Your task to perform on an android device: Open calendar and show me the second week of next month Image 0: 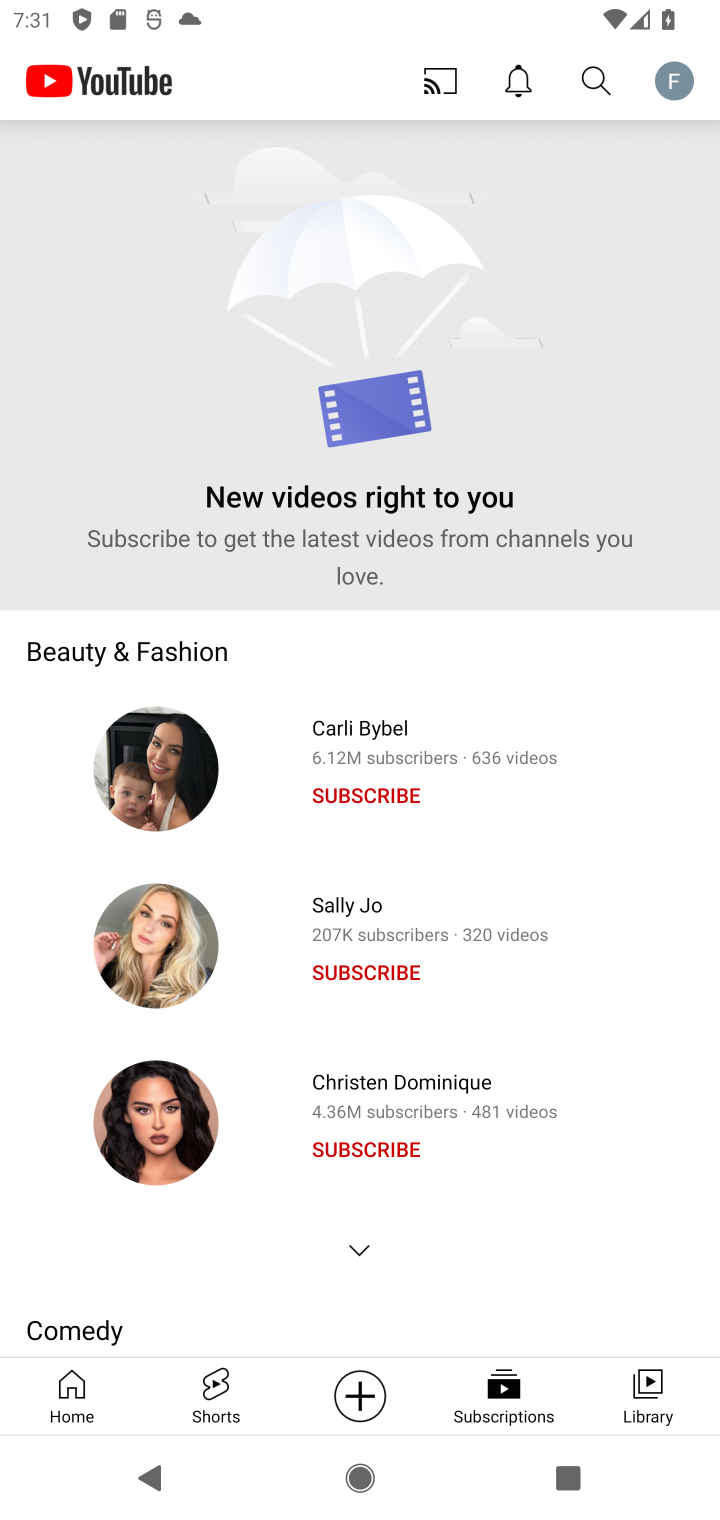
Step 0: press home button
Your task to perform on an android device: Open calendar and show me the second week of next month Image 1: 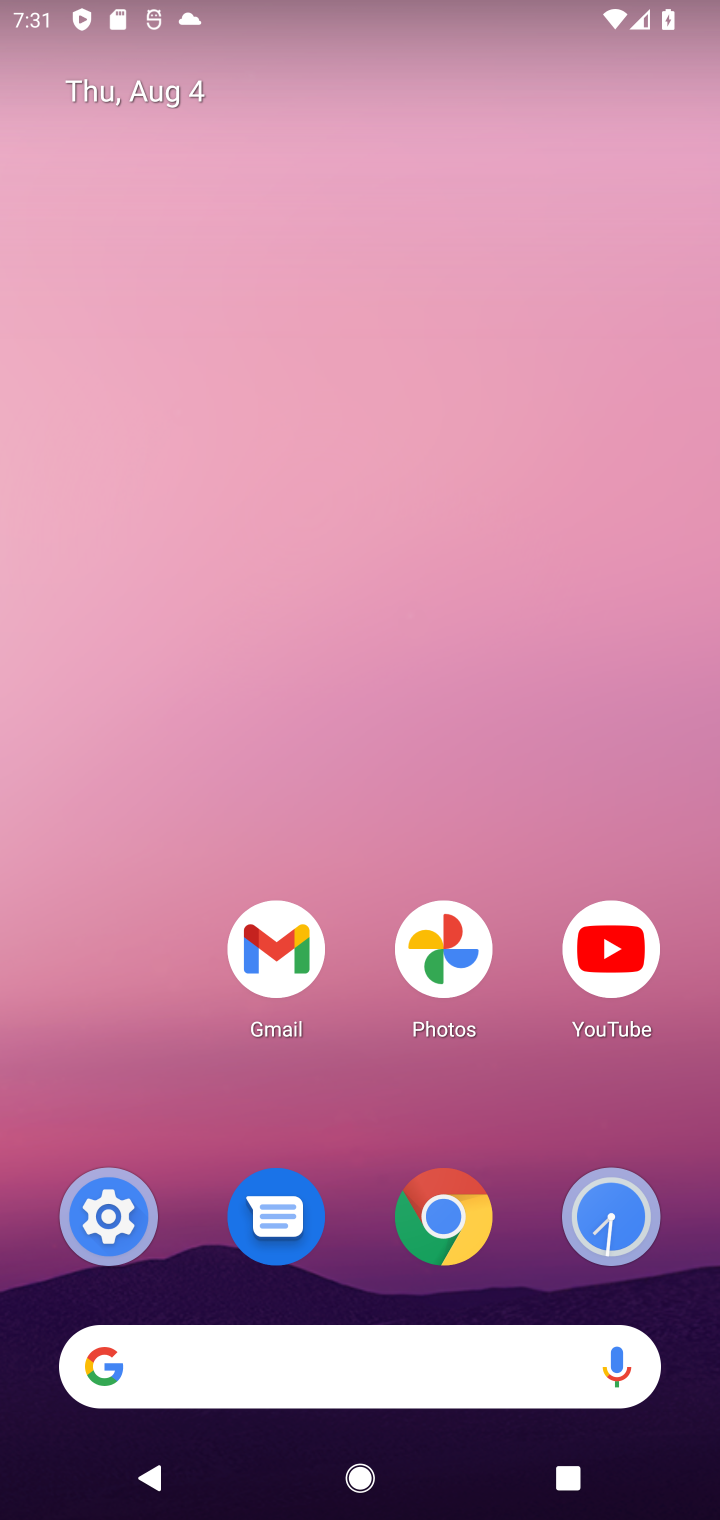
Step 1: drag from (361, 1186) to (372, 168)
Your task to perform on an android device: Open calendar and show me the second week of next month Image 2: 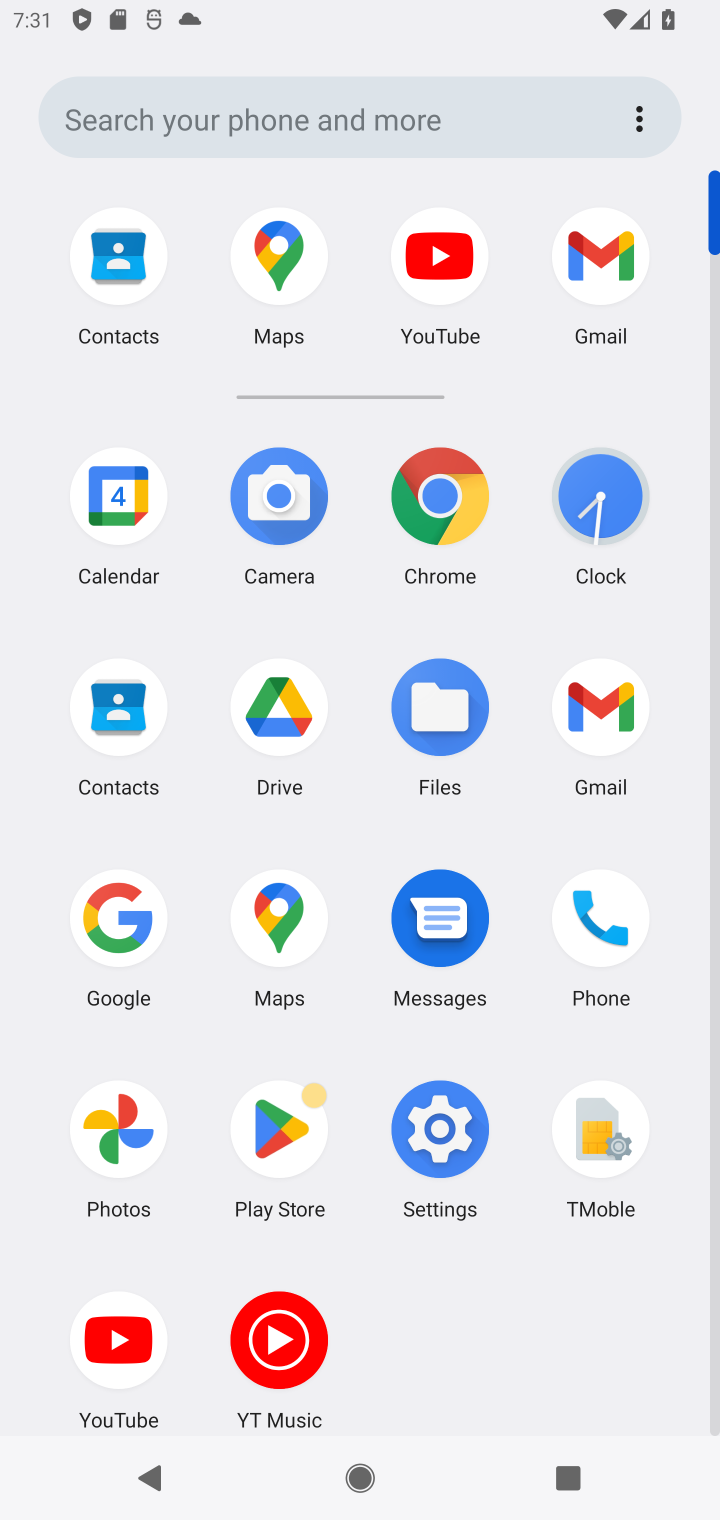
Step 2: click (131, 481)
Your task to perform on an android device: Open calendar and show me the second week of next month Image 3: 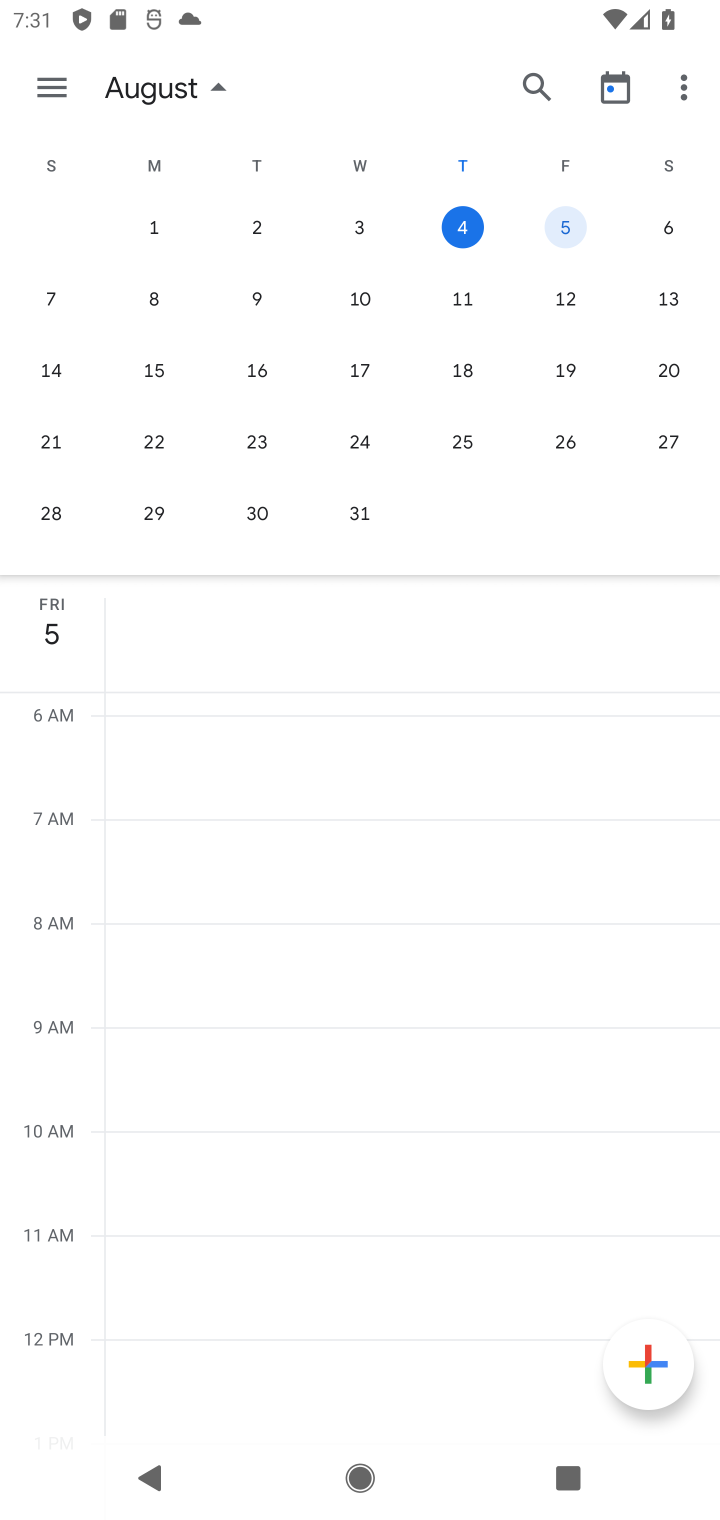
Step 3: drag from (517, 290) to (98, 285)
Your task to perform on an android device: Open calendar and show me the second week of next month Image 4: 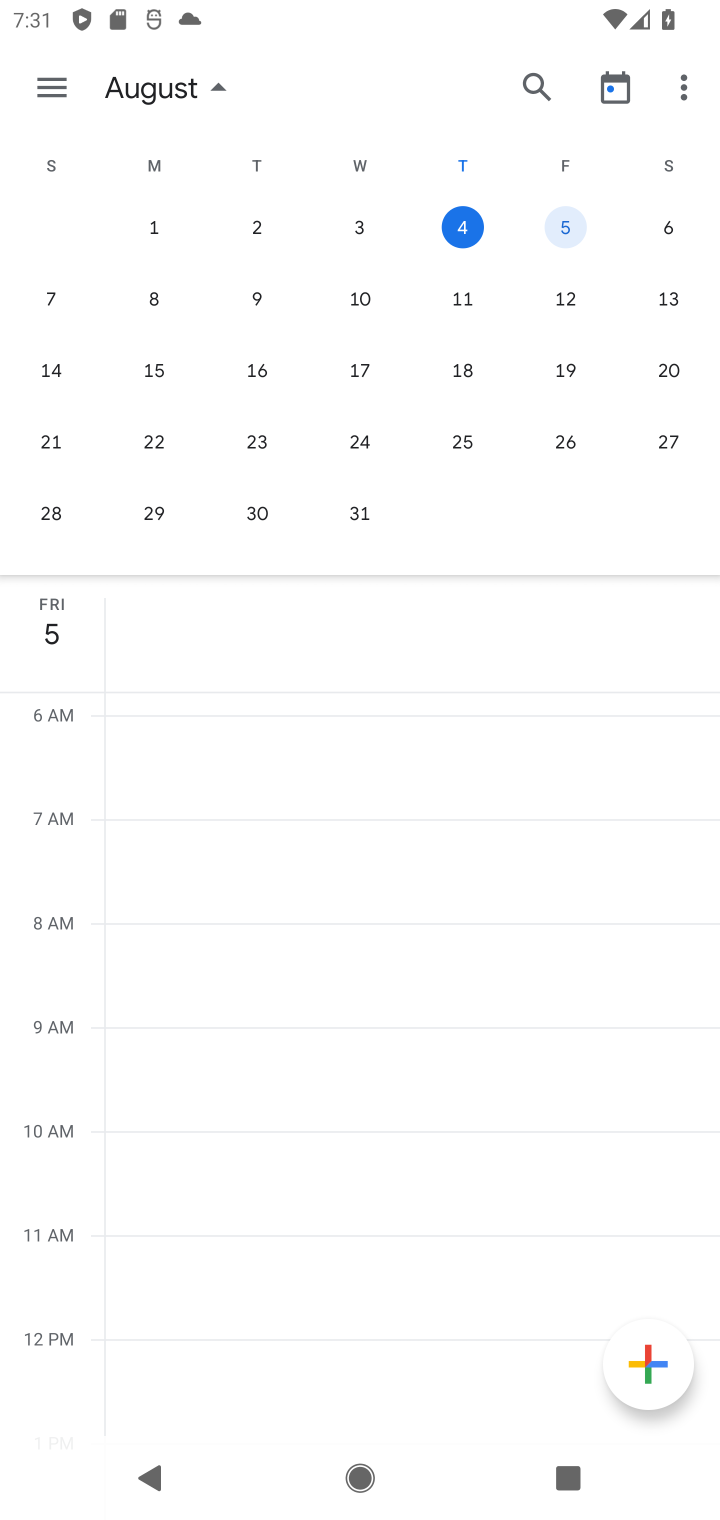
Step 4: drag from (648, 361) to (15, 378)
Your task to perform on an android device: Open calendar and show me the second week of next month Image 5: 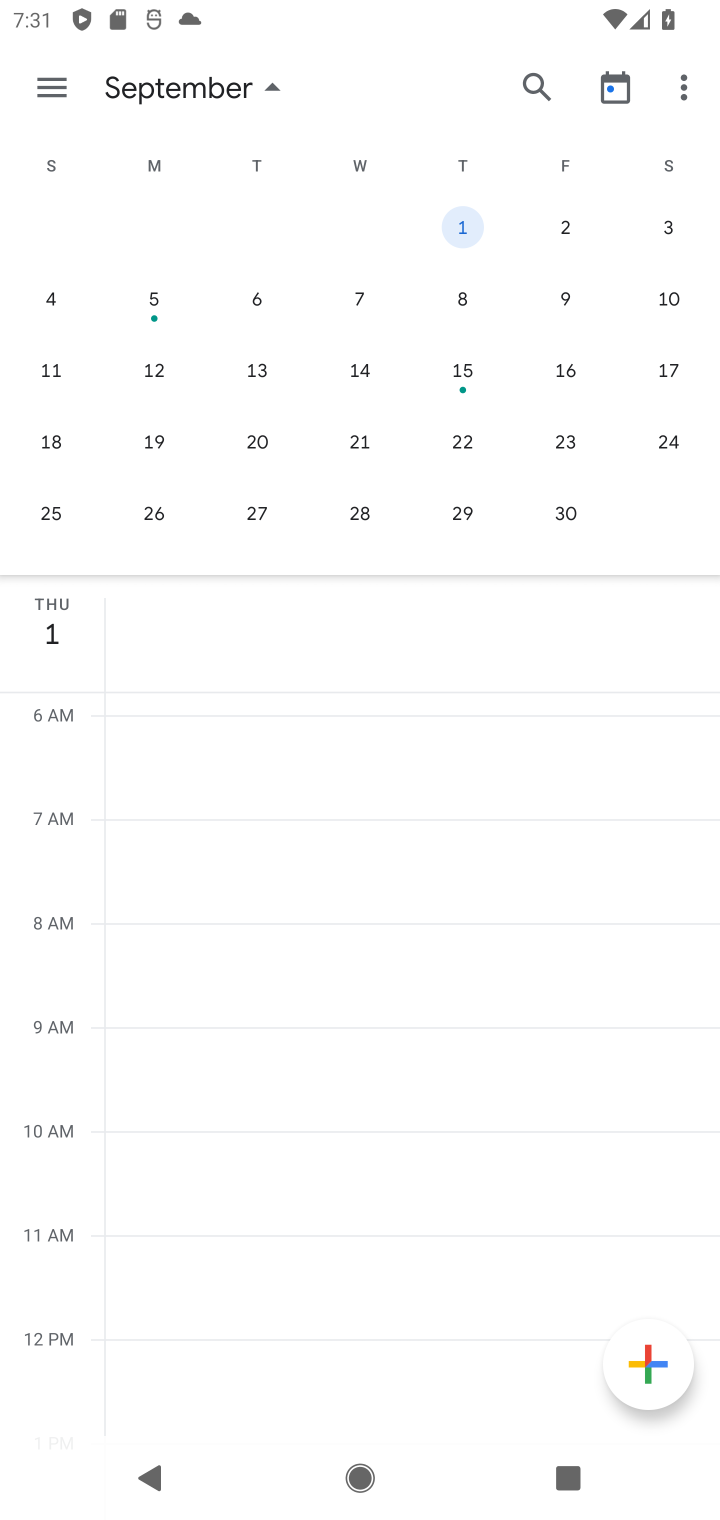
Step 5: click (154, 357)
Your task to perform on an android device: Open calendar and show me the second week of next month Image 6: 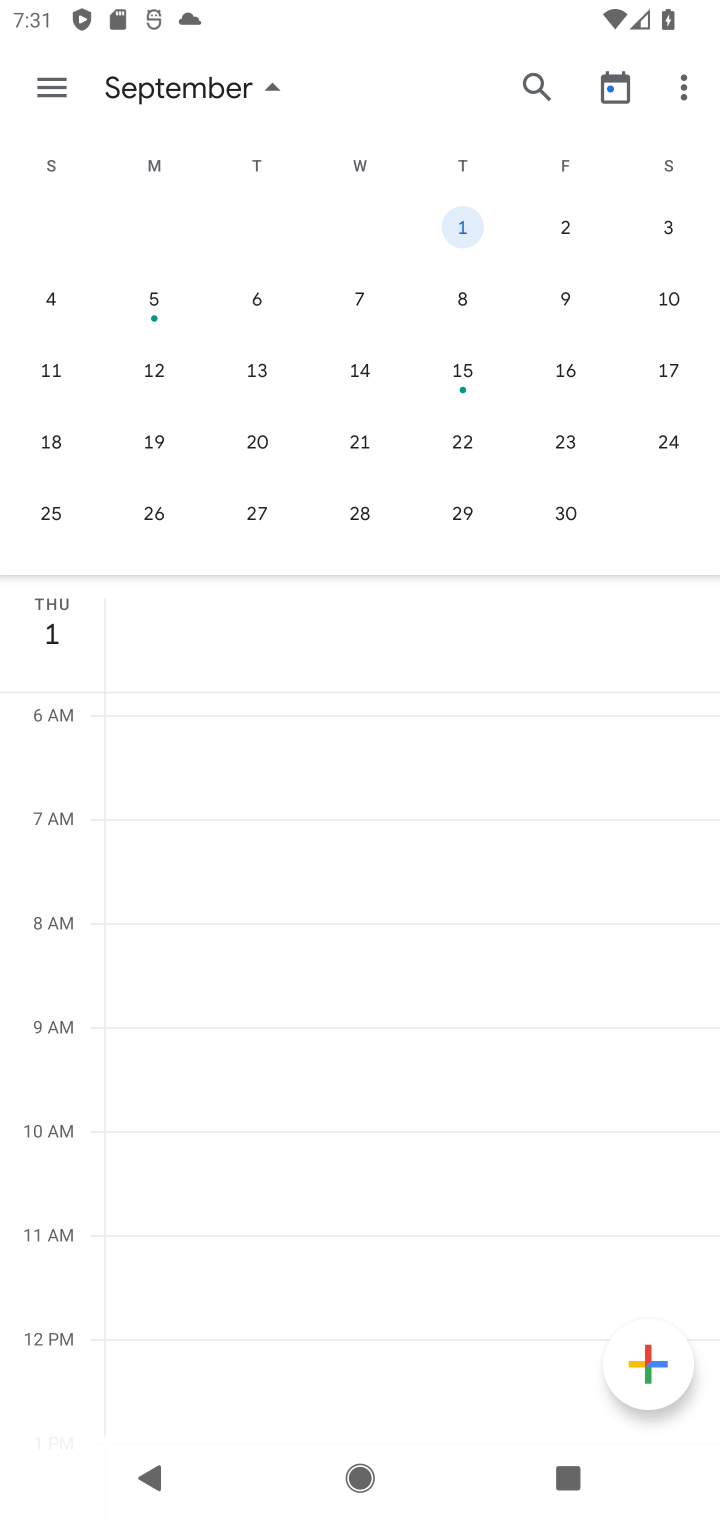
Step 6: click (151, 360)
Your task to perform on an android device: Open calendar and show me the second week of next month Image 7: 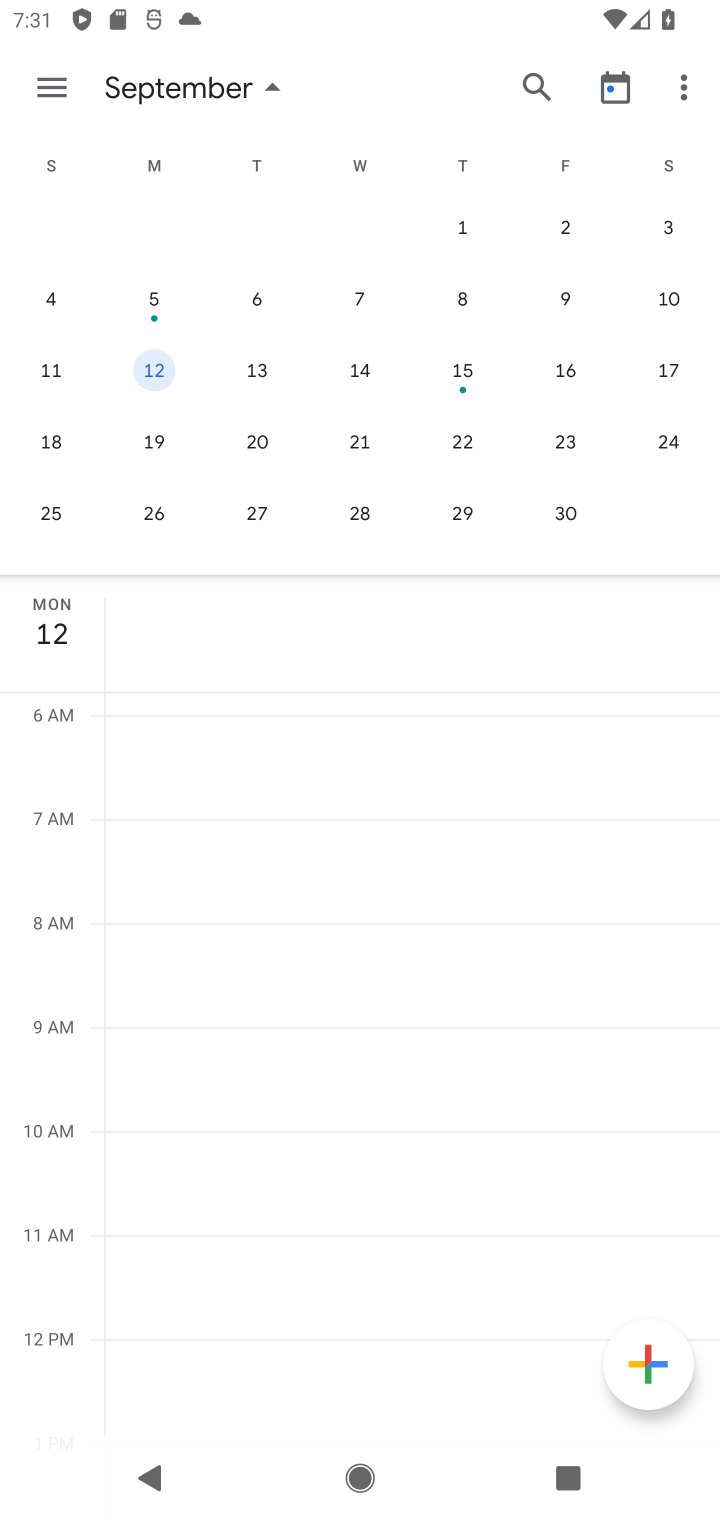
Step 7: click (58, 80)
Your task to perform on an android device: Open calendar and show me the second week of next month Image 8: 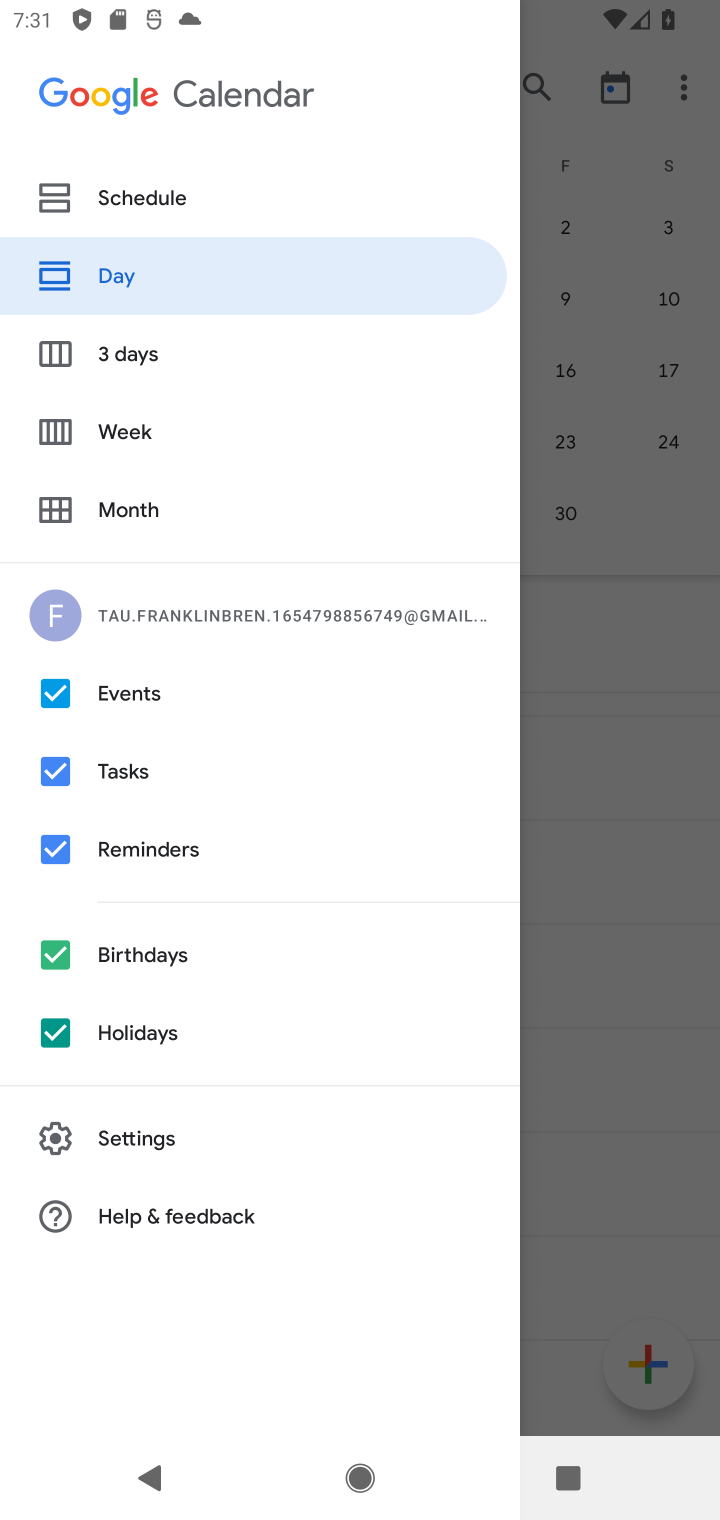
Step 8: click (115, 429)
Your task to perform on an android device: Open calendar and show me the second week of next month Image 9: 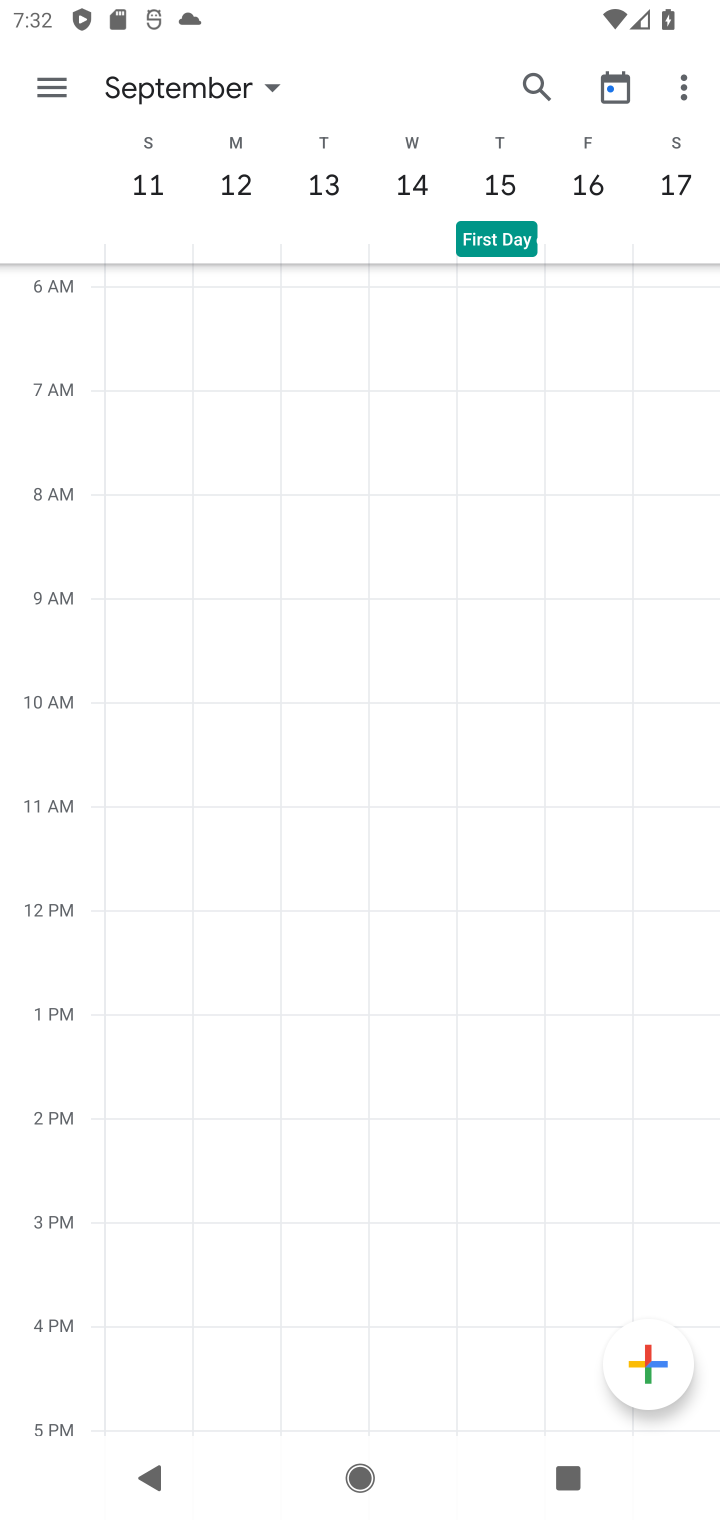
Step 9: task complete